Your task to perform on an android device: turn off airplane mode Image 0: 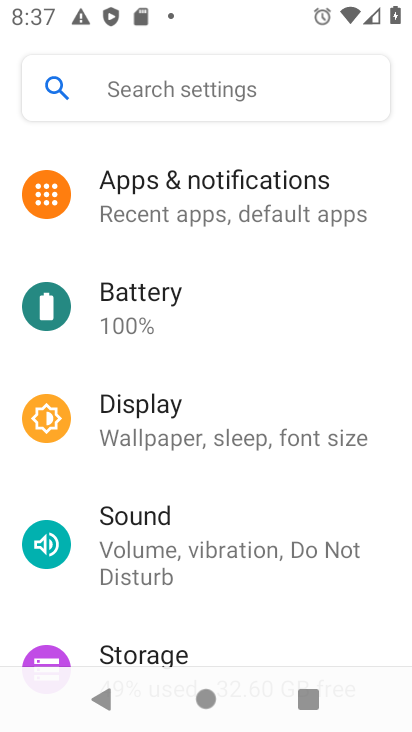
Step 0: drag from (284, 239) to (255, 632)
Your task to perform on an android device: turn off airplane mode Image 1: 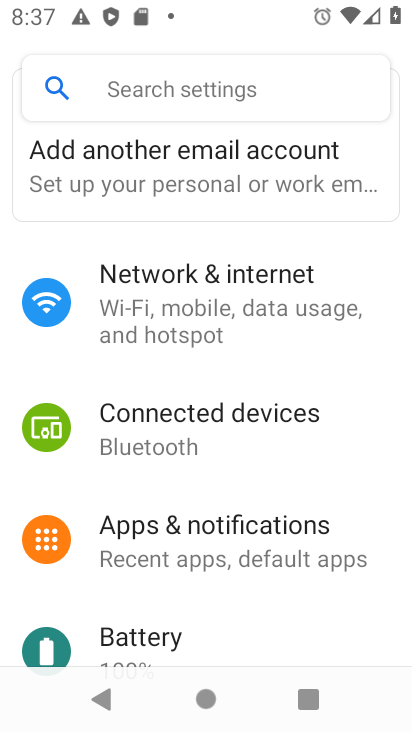
Step 1: drag from (276, 363) to (264, 561)
Your task to perform on an android device: turn off airplane mode Image 2: 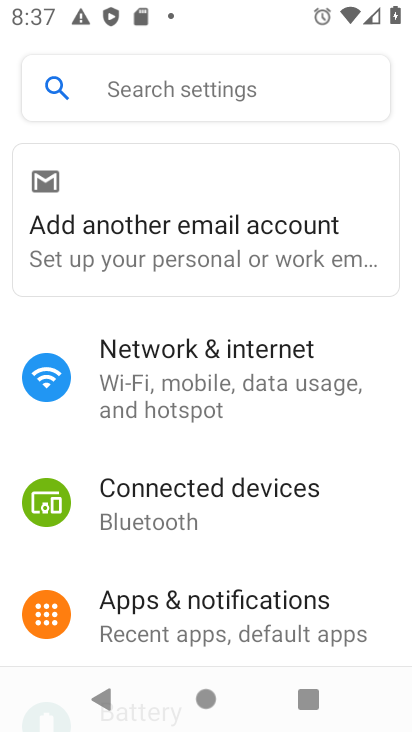
Step 2: click (208, 364)
Your task to perform on an android device: turn off airplane mode Image 3: 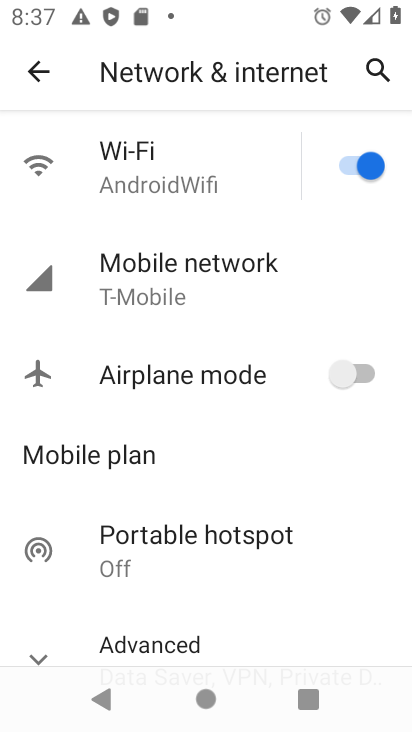
Step 3: task complete